Your task to perform on an android device: Open network settings Image 0: 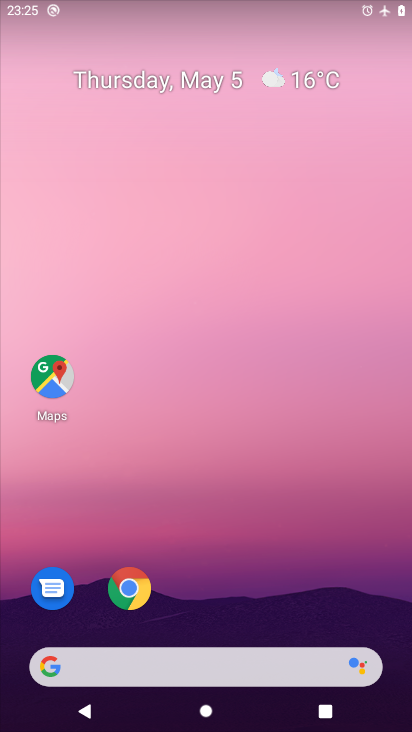
Step 0: drag from (227, 584) to (215, 169)
Your task to perform on an android device: Open network settings Image 1: 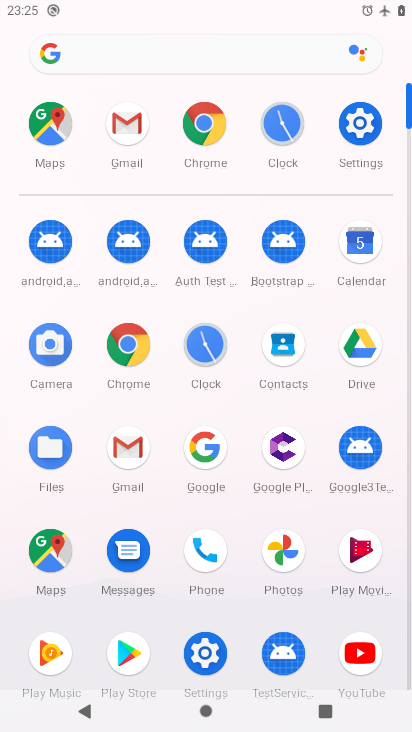
Step 1: click (345, 121)
Your task to perform on an android device: Open network settings Image 2: 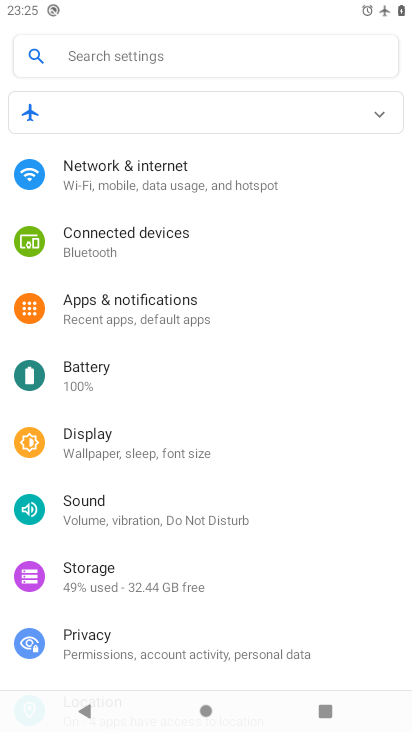
Step 2: click (260, 171)
Your task to perform on an android device: Open network settings Image 3: 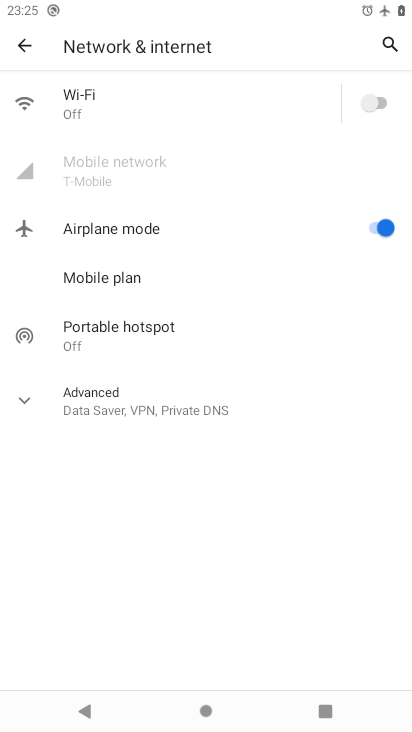
Step 3: task complete